Your task to perform on an android device: turn off data saver in the chrome app Image 0: 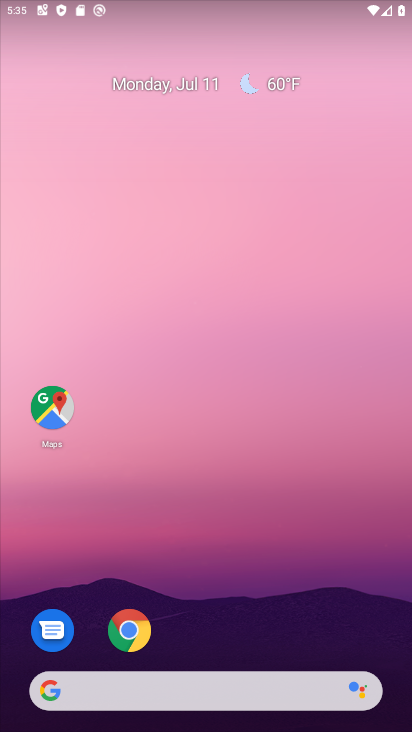
Step 0: press home button
Your task to perform on an android device: turn off data saver in the chrome app Image 1: 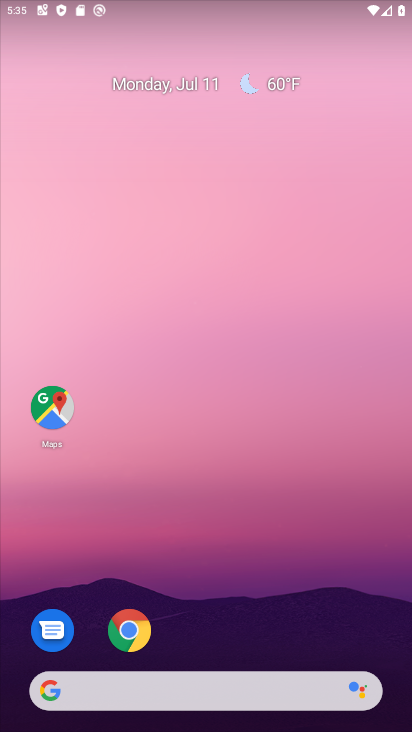
Step 1: click (130, 643)
Your task to perform on an android device: turn off data saver in the chrome app Image 2: 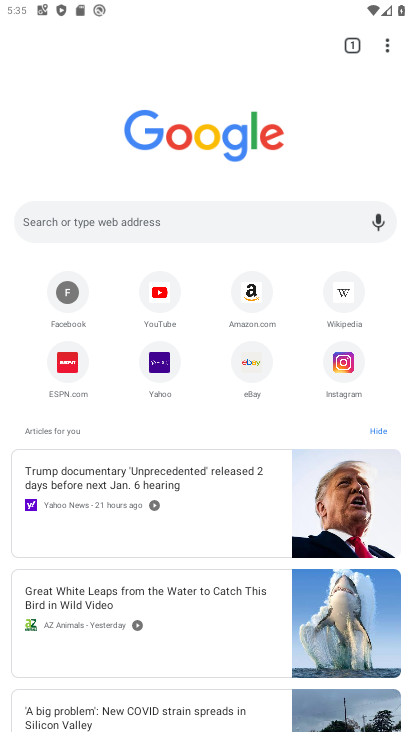
Step 2: press home button
Your task to perform on an android device: turn off data saver in the chrome app Image 3: 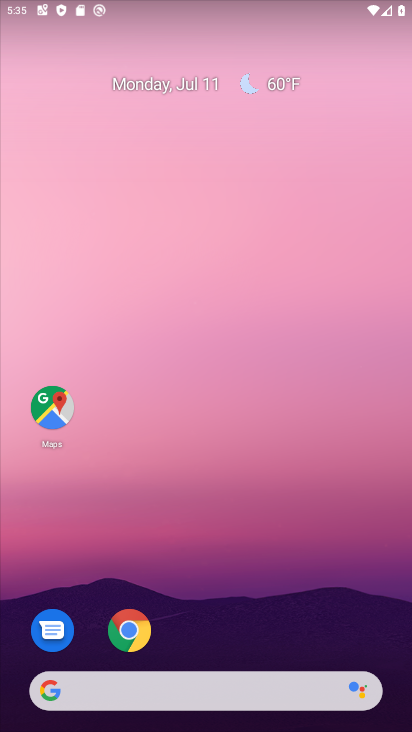
Step 3: click (117, 627)
Your task to perform on an android device: turn off data saver in the chrome app Image 4: 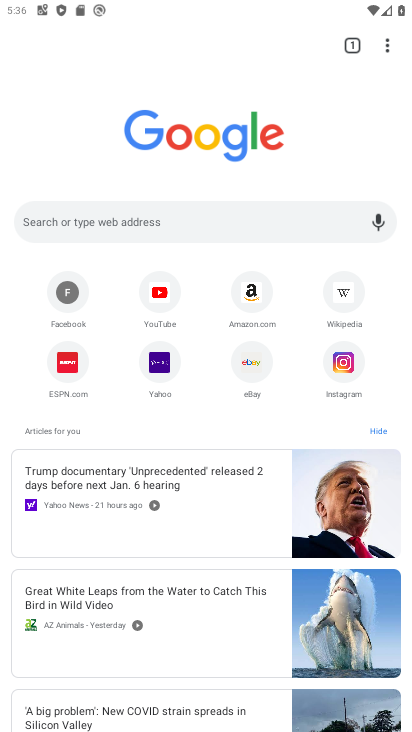
Step 4: click (385, 43)
Your task to perform on an android device: turn off data saver in the chrome app Image 5: 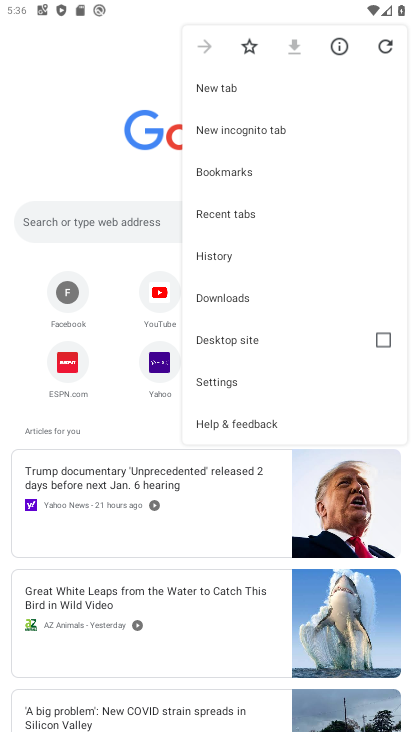
Step 5: click (219, 381)
Your task to perform on an android device: turn off data saver in the chrome app Image 6: 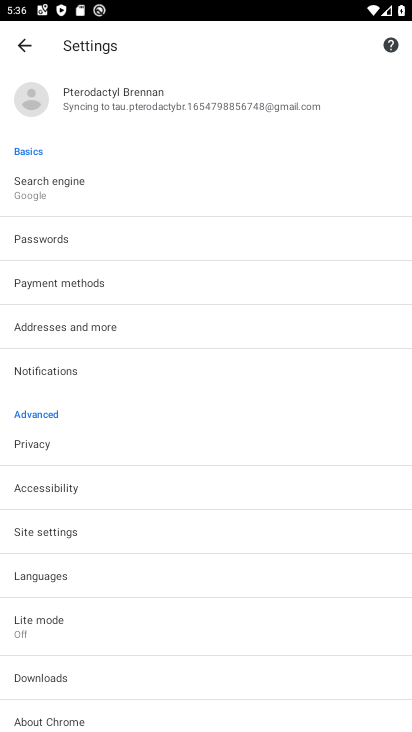
Step 6: click (46, 639)
Your task to perform on an android device: turn off data saver in the chrome app Image 7: 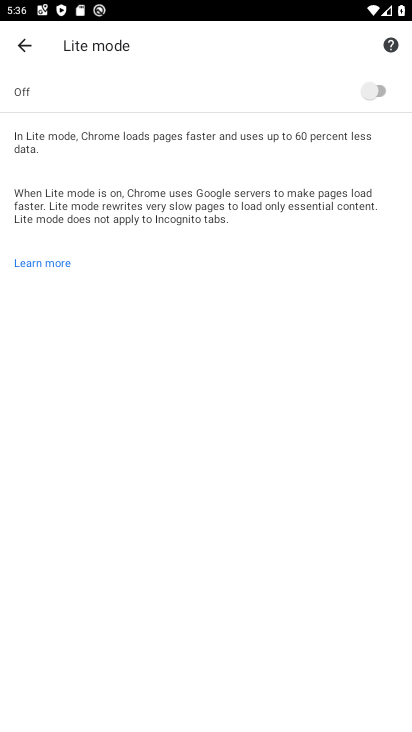
Step 7: task complete